Your task to perform on an android device: Open eBay Image 0: 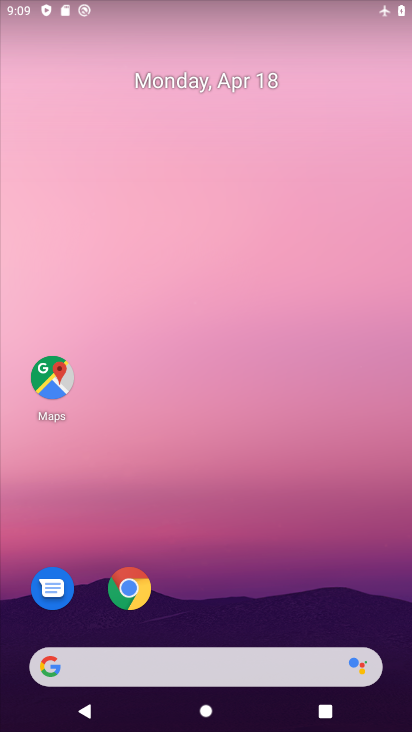
Step 0: drag from (260, 305) to (272, 93)
Your task to perform on an android device: Open eBay Image 1: 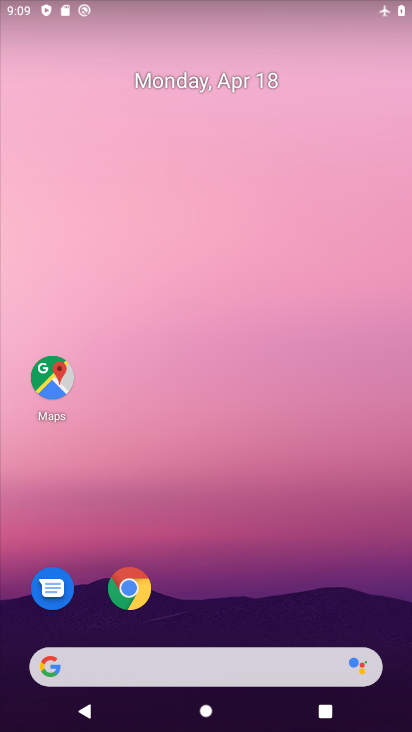
Step 1: drag from (240, 543) to (280, 207)
Your task to perform on an android device: Open eBay Image 2: 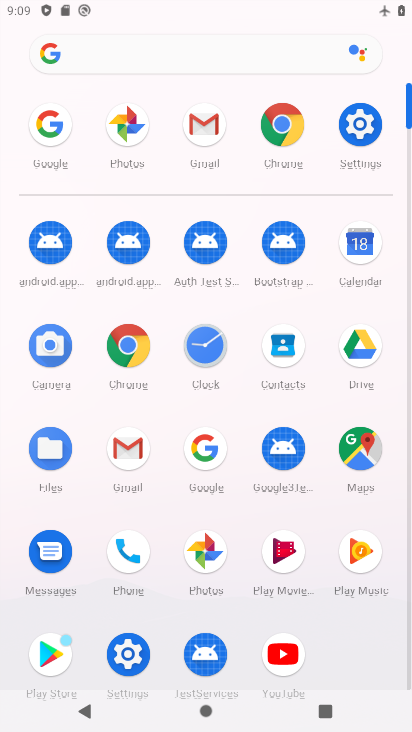
Step 2: click (117, 355)
Your task to perform on an android device: Open eBay Image 3: 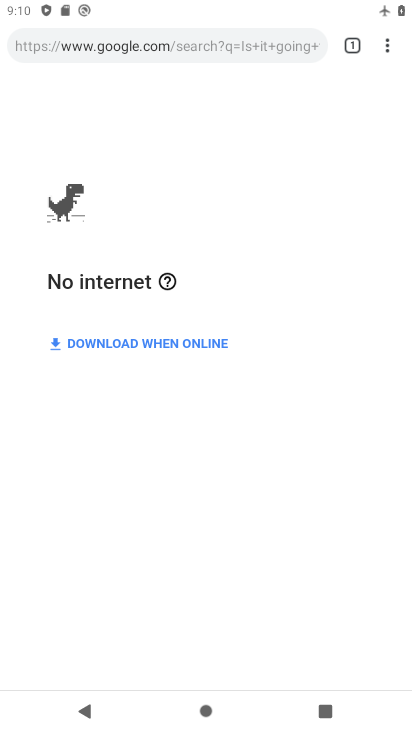
Step 3: click (387, 43)
Your task to perform on an android device: Open eBay Image 4: 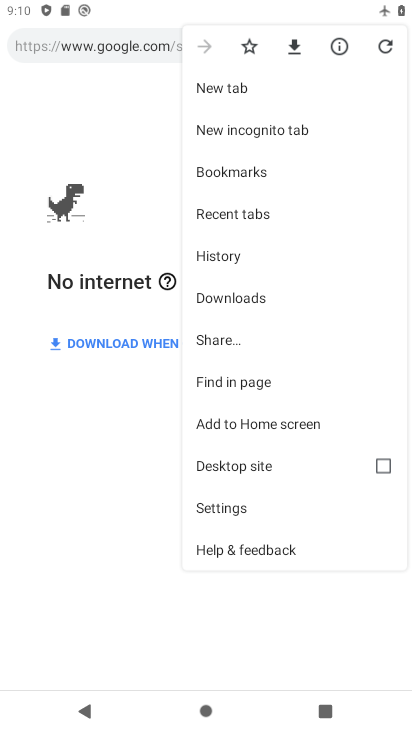
Step 4: click (328, 95)
Your task to perform on an android device: Open eBay Image 5: 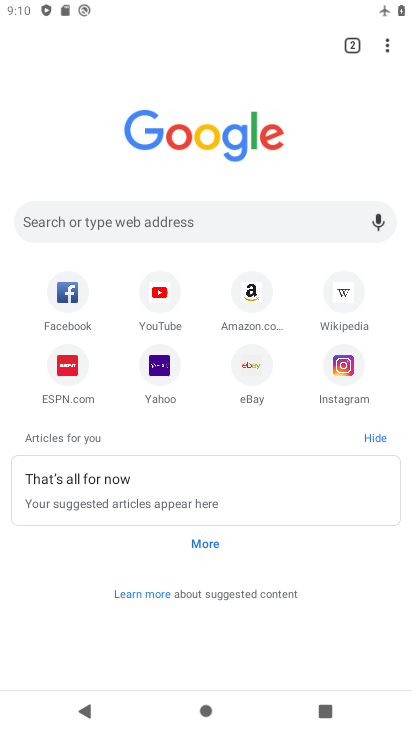
Step 5: click (250, 363)
Your task to perform on an android device: Open eBay Image 6: 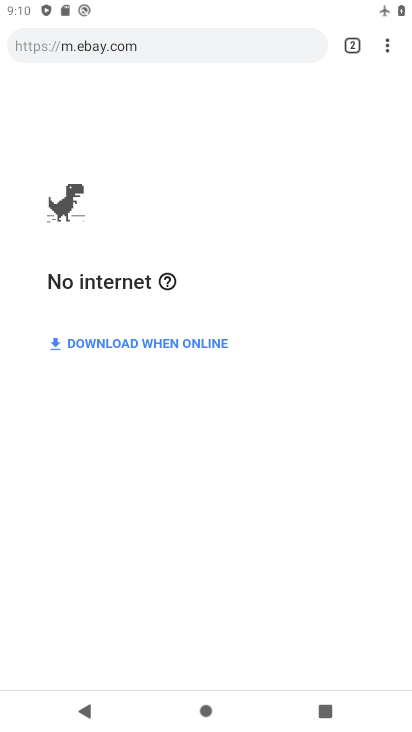
Step 6: task complete